Your task to perform on an android device: check google app version Image 0: 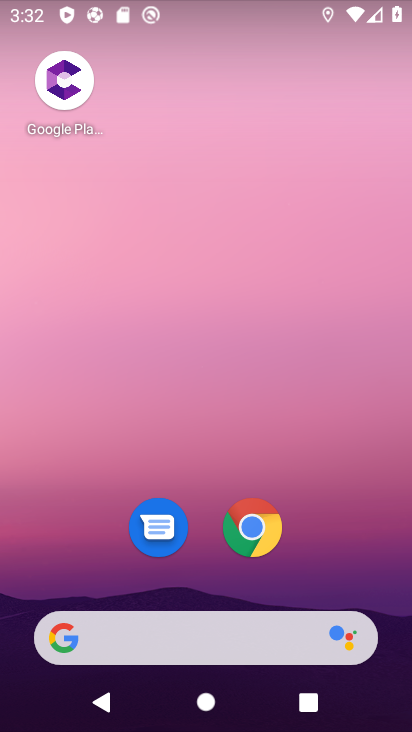
Step 0: drag from (363, 548) to (293, 132)
Your task to perform on an android device: check google app version Image 1: 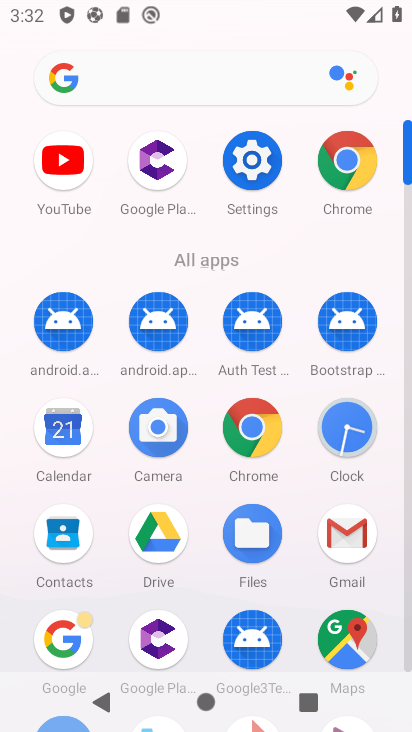
Step 1: click (339, 171)
Your task to perform on an android device: check google app version Image 2: 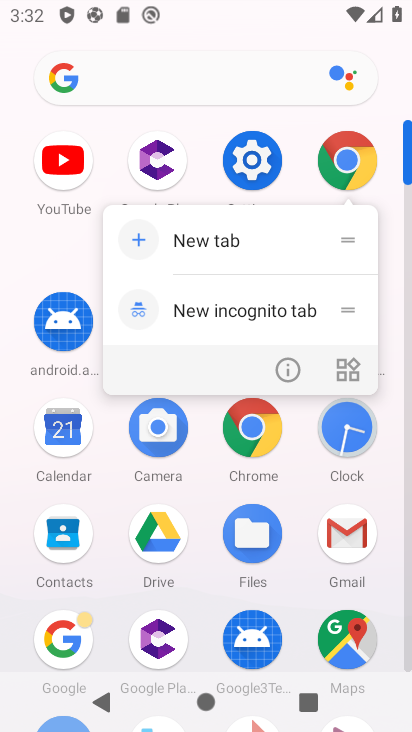
Step 2: click (288, 363)
Your task to perform on an android device: check google app version Image 3: 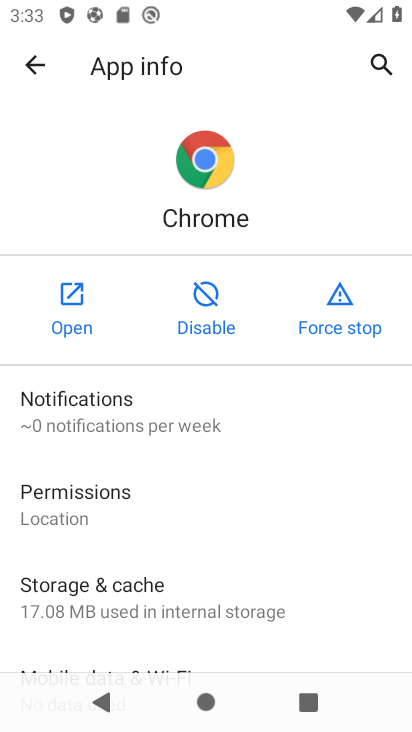
Step 3: drag from (284, 598) to (278, 194)
Your task to perform on an android device: check google app version Image 4: 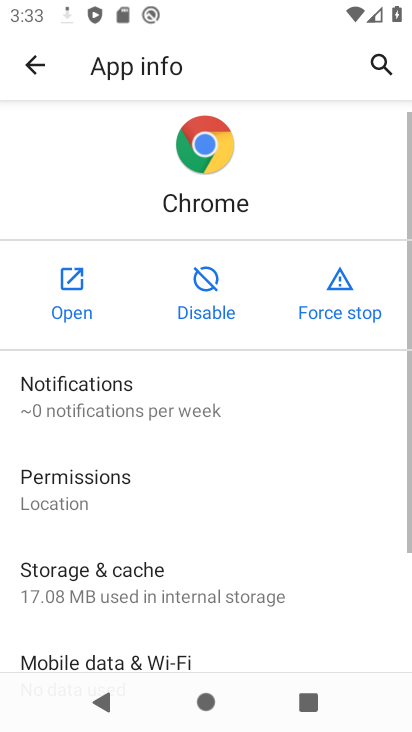
Step 4: drag from (218, 525) to (199, 143)
Your task to perform on an android device: check google app version Image 5: 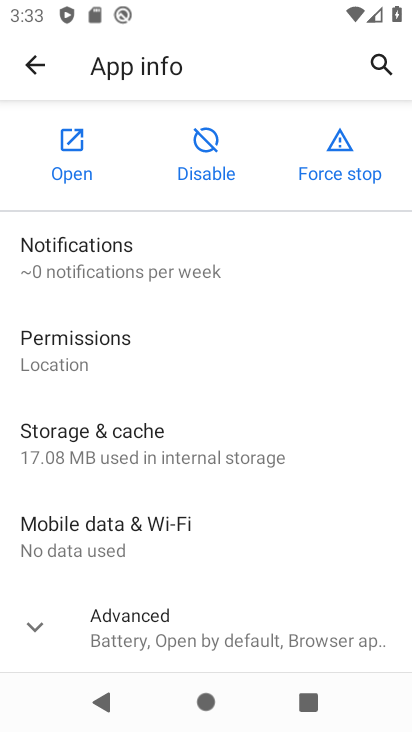
Step 5: click (189, 628)
Your task to perform on an android device: check google app version Image 6: 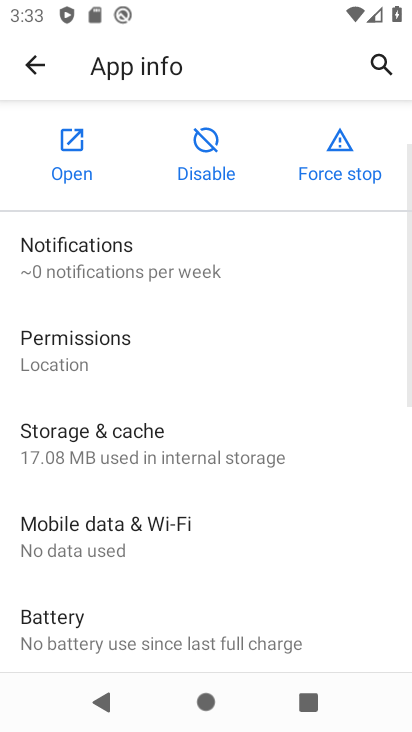
Step 6: task complete